Your task to perform on an android device: allow notifications from all sites in the chrome app Image 0: 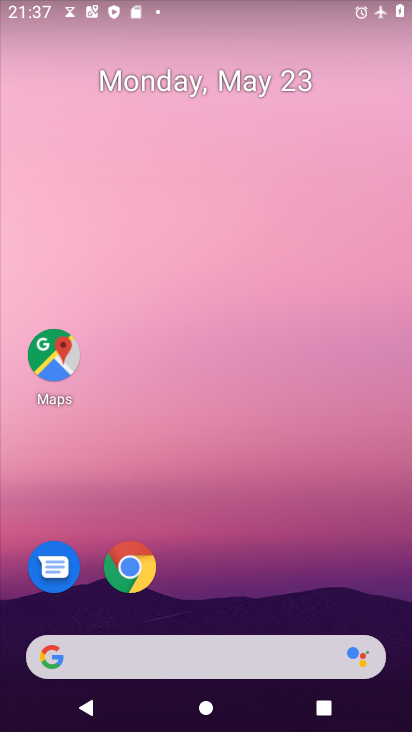
Step 0: drag from (242, 591) to (273, 257)
Your task to perform on an android device: allow notifications from all sites in the chrome app Image 1: 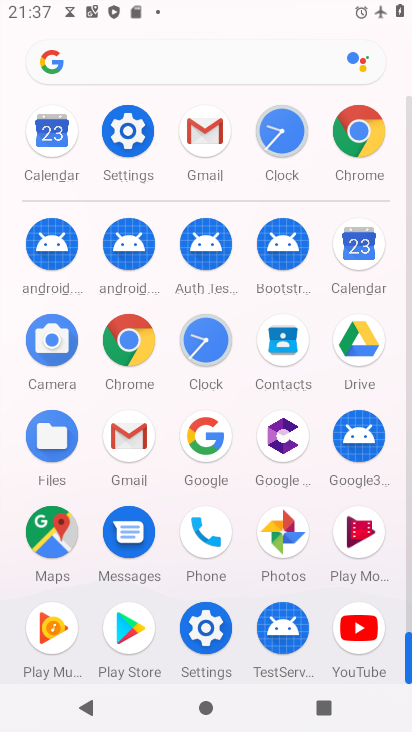
Step 1: click (129, 327)
Your task to perform on an android device: allow notifications from all sites in the chrome app Image 2: 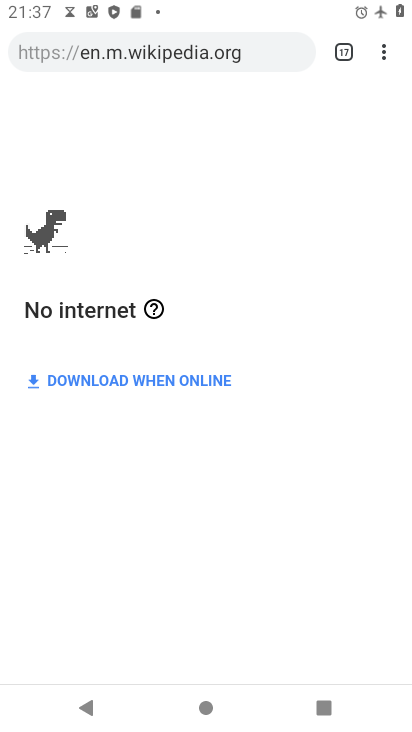
Step 2: click (378, 40)
Your task to perform on an android device: allow notifications from all sites in the chrome app Image 3: 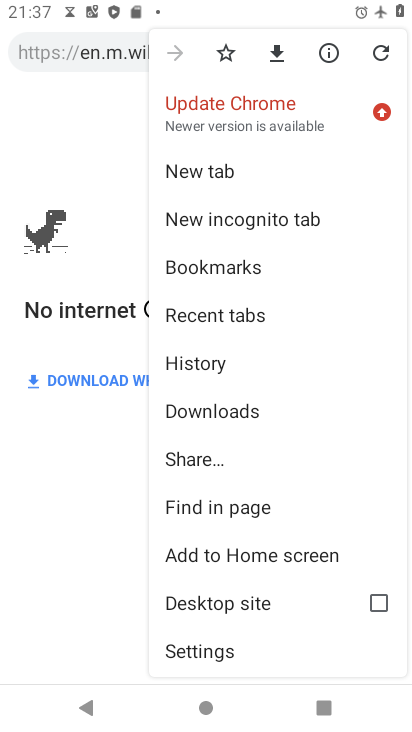
Step 3: click (232, 643)
Your task to perform on an android device: allow notifications from all sites in the chrome app Image 4: 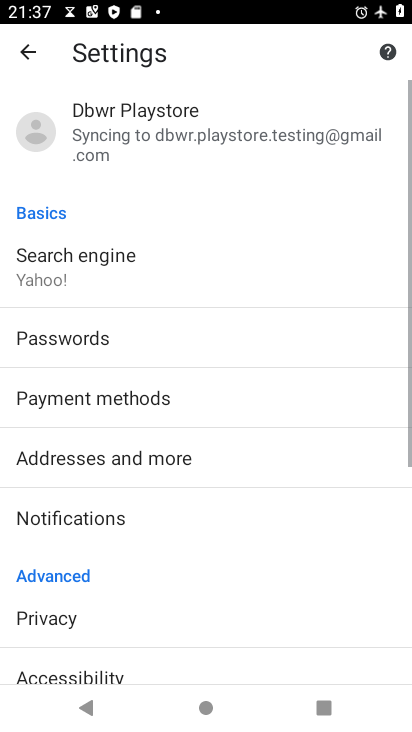
Step 4: drag from (178, 668) to (224, 239)
Your task to perform on an android device: allow notifications from all sites in the chrome app Image 5: 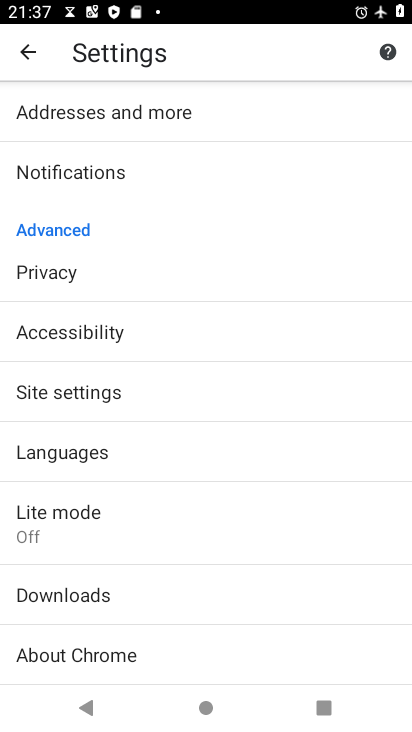
Step 5: click (129, 379)
Your task to perform on an android device: allow notifications from all sites in the chrome app Image 6: 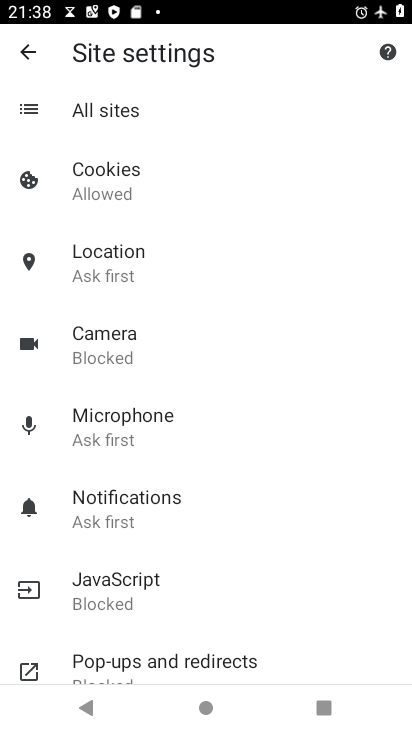
Step 6: click (95, 163)
Your task to perform on an android device: allow notifications from all sites in the chrome app Image 7: 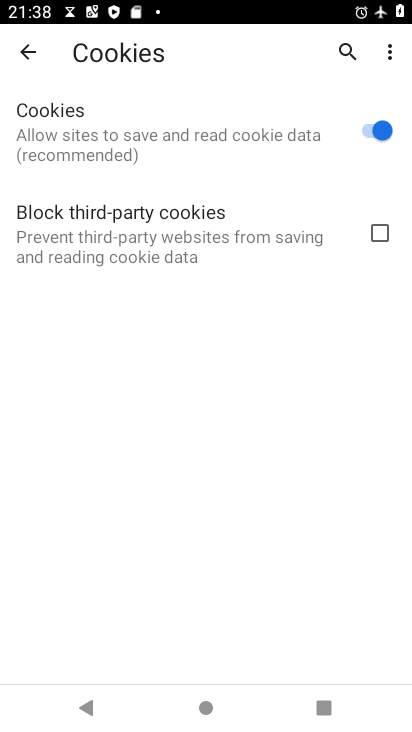
Step 7: click (29, 54)
Your task to perform on an android device: allow notifications from all sites in the chrome app Image 8: 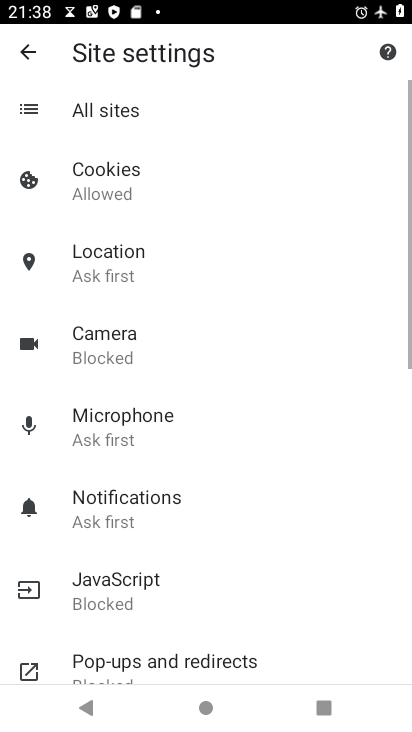
Step 8: click (140, 279)
Your task to perform on an android device: allow notifications from all sites in the chrome app Image 9: 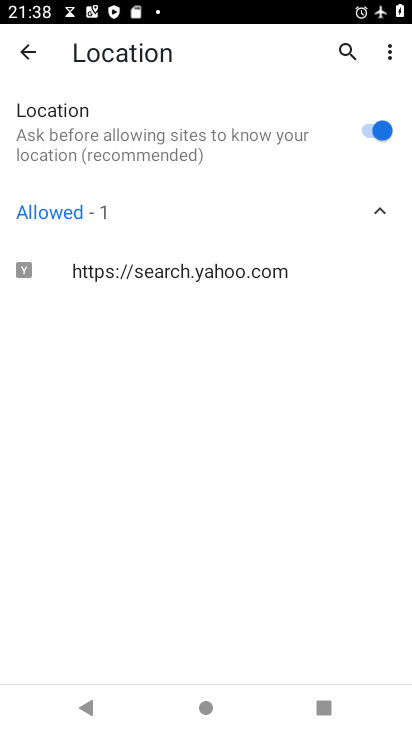
Step 9: click (22, 65)
Your task to perform on an android device: allow notifications from all sites in the chrome app Image 10: 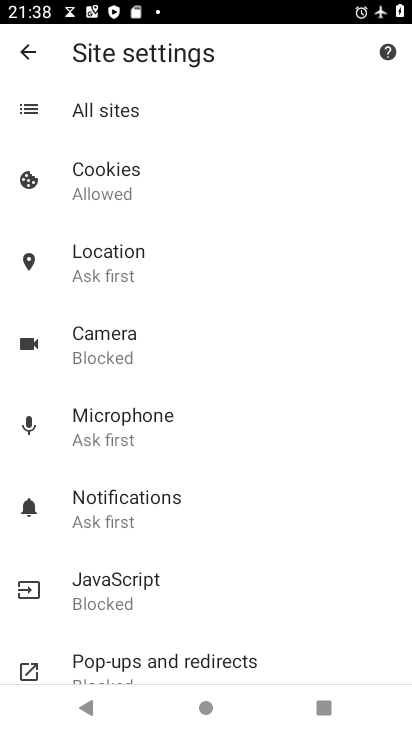
Step 10: click (151, 503)
Your task to perform on an android device: allow notifications from all sites in the chrome app Image 11: 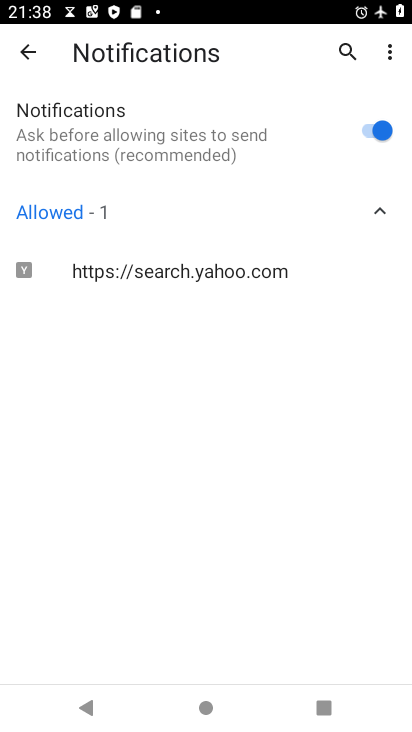
Step 11: click (26, 37)
Your task to perform on an android device: allow notifications from all sites in the chrome app Image 12: 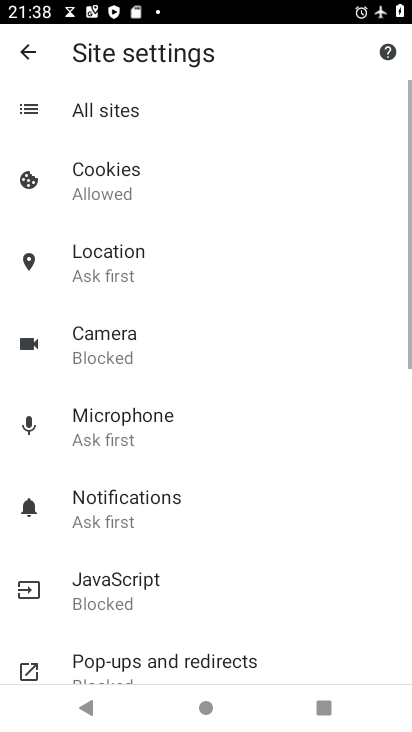
Step 12: task complete